Your task to perform on an android device: delete a single message in the gmail app Image 0: 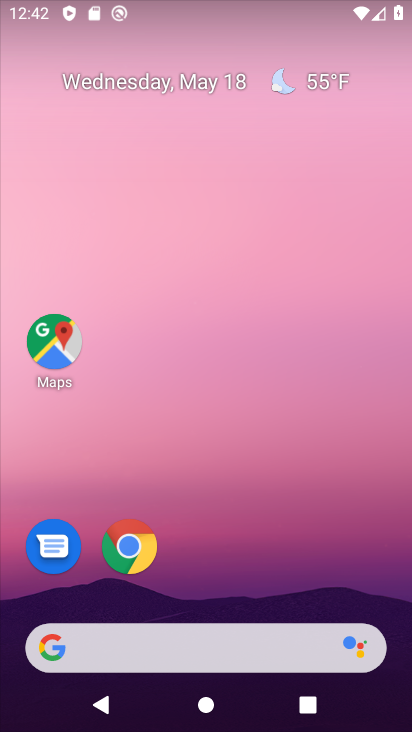
Step 0: drag from (342, 588) to (394, 115)
Your task to perform on an android device: delete a single message in the gmail app Image 1: 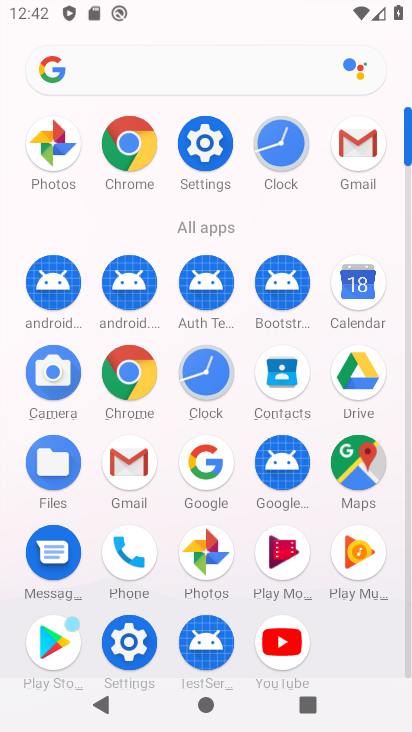
Step 1: click (142, 469)
Your task to perform on an android device: delete a single message in the gmail app Image 2: 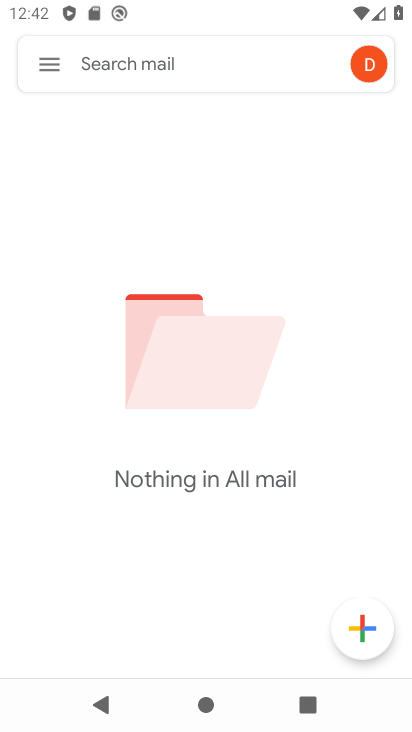
Step 2: task complete